Your task to perform on an android device: Open Yahoo.com Image 0: 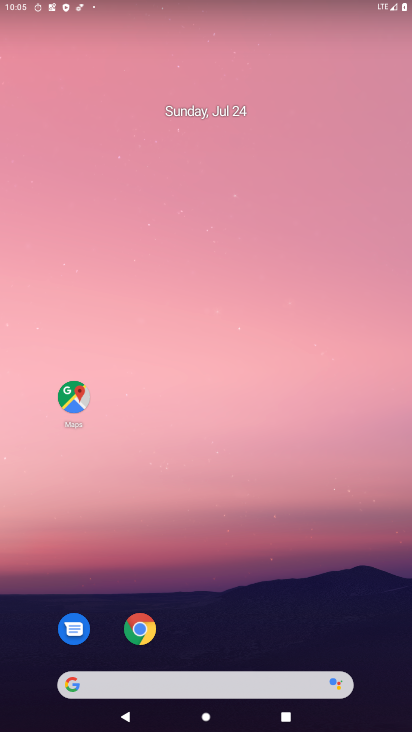
Step 0: press home button
Your task to perform on an android device: Open Yahoo.com Image 1: 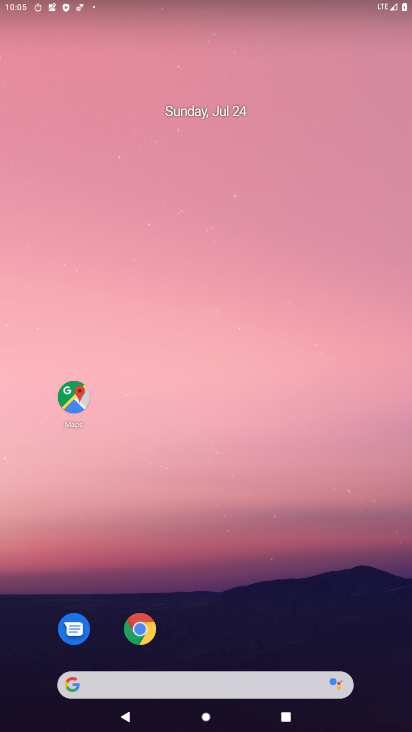
Step 1: click (71, 682)
Your task to perform on an android device: Open Yahoo.com Image 2: 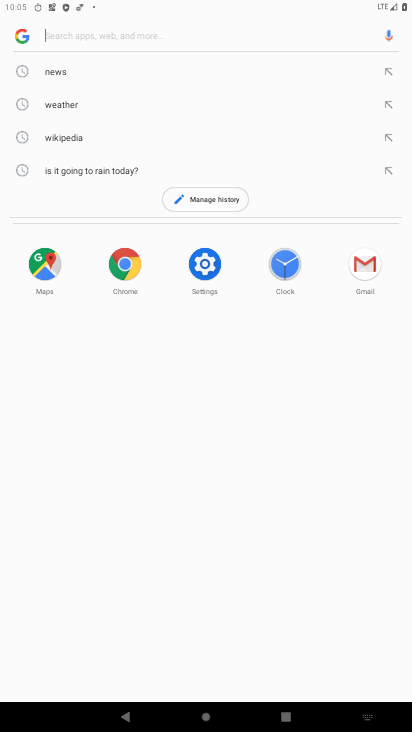
Step 2: type "Yahoo.com"
Your task to perform on an android device: Open Yahoo.com Image 3: 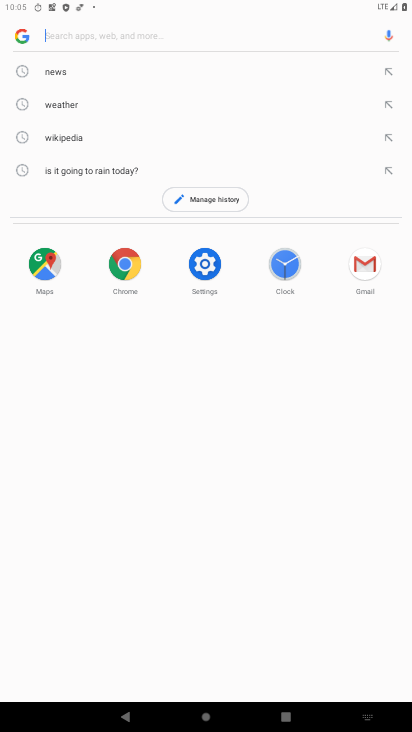
Step 3: click (50, 38)
Your task to perform on an android device: Open Yahoo.com Image 4: 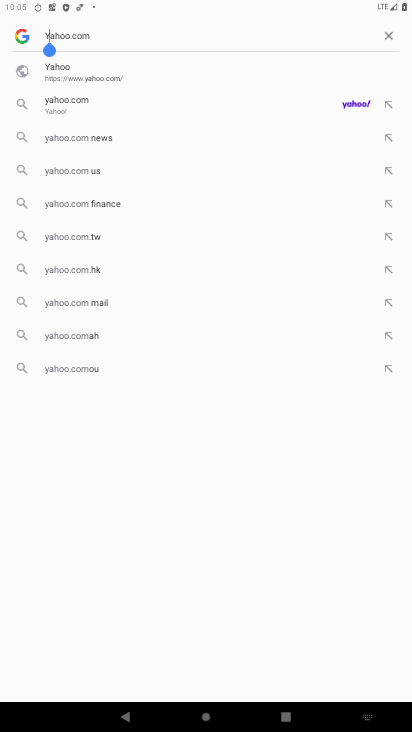
Step 4: press enter
Your task to perform on an android device: Open Yahoo.com Image 5: 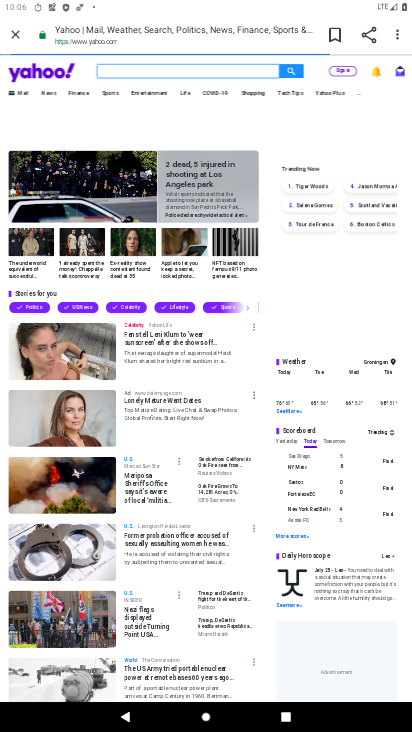
Step 5: task complete